Your task to perform on an android device: find photos in the google photos app Image 0: 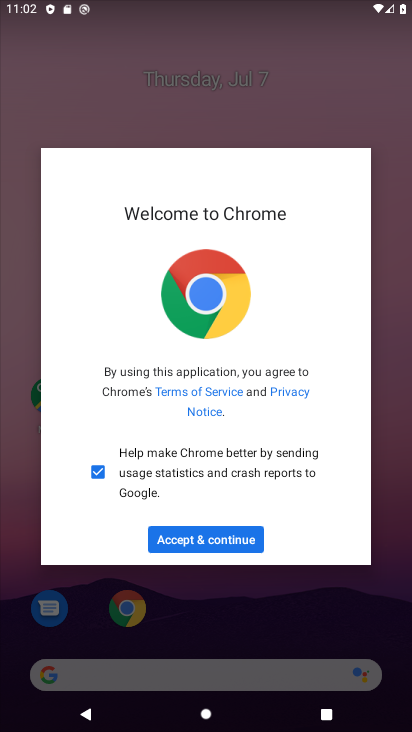
Step 0: press home button
Your task to perform on an android device: find photos in the google photos app Image 1: 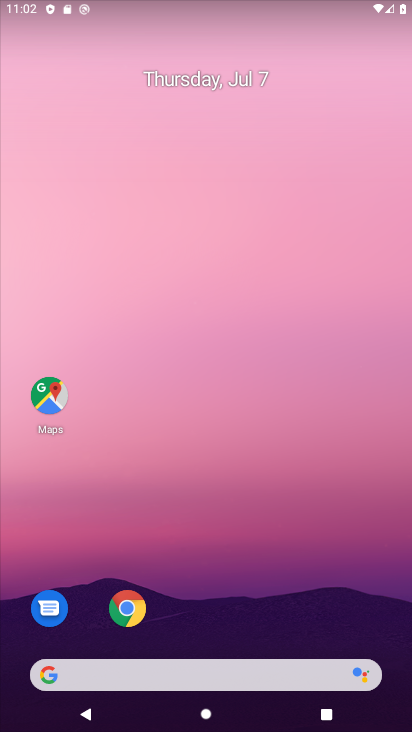
Step 1: drag from (315, 590) to (156, 129)
Your task to perform on an android device: find photos in the google photos app Image 2: 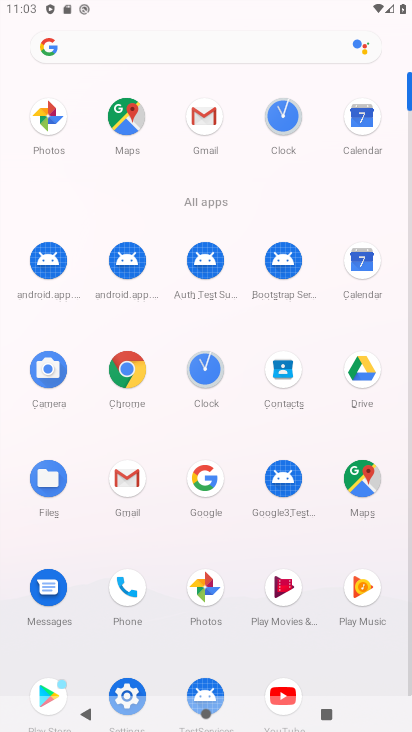
Step 2: click (209, 591)
Your task to perform on an android device: find photos in the google photos app Image 3: 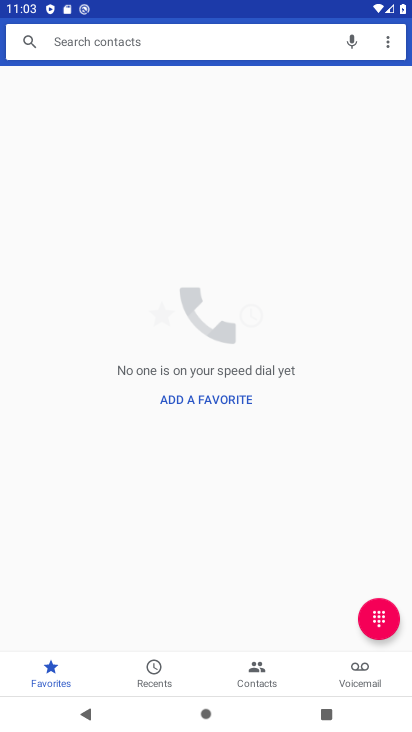
Step 3: press home button
Your task to perform on an android device: find photos in the google photos app Image 4: 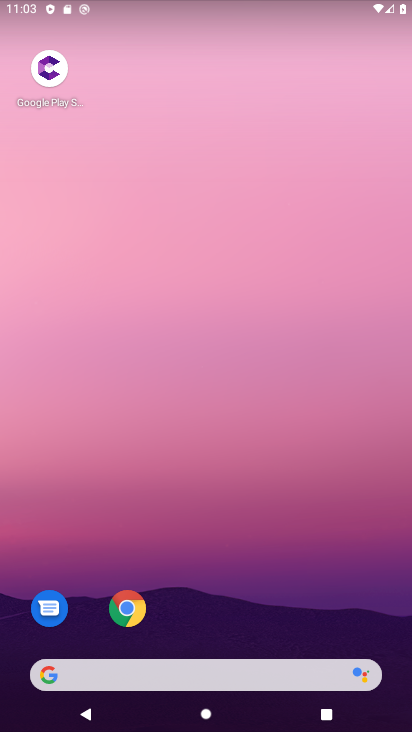
Step 4: drag from (309, 625) to (220, 149)
Your task to perform on an android device: find photos in the google photos app Image 5: 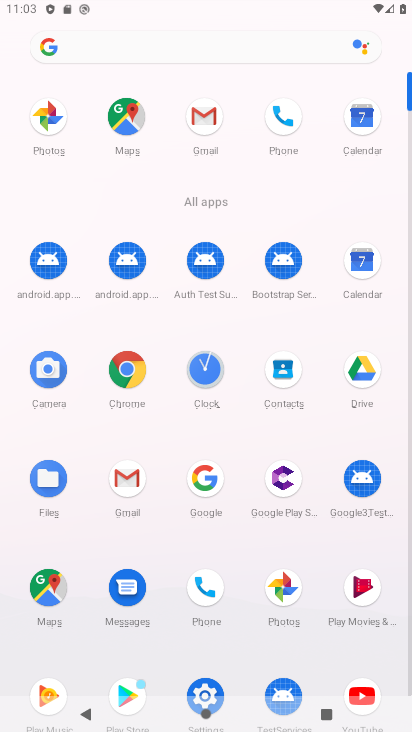
Step 5: click (58, 143)
Your task to perform on an android device: find photos in the google photos app Image 6: 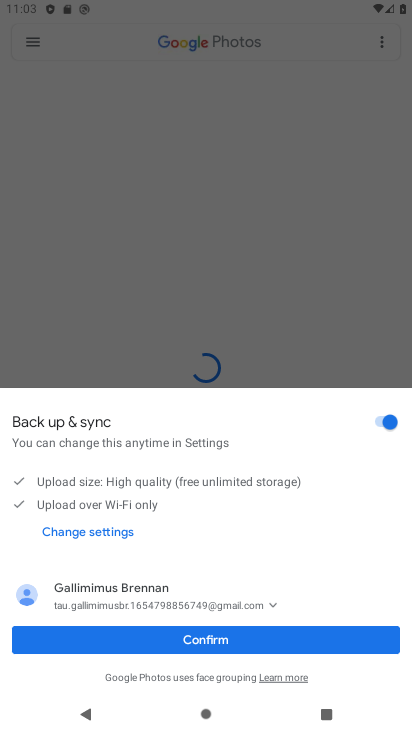
Step 6: click (247, 640)
Your task to perform on an android device: find photos in the google photos app Image 7: 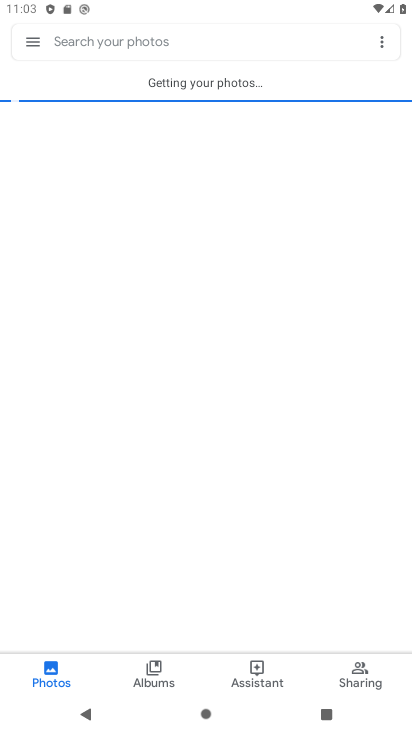
Step 7: task complete